Your task to perform on an android device: turn on improve location accuracy Image 0: 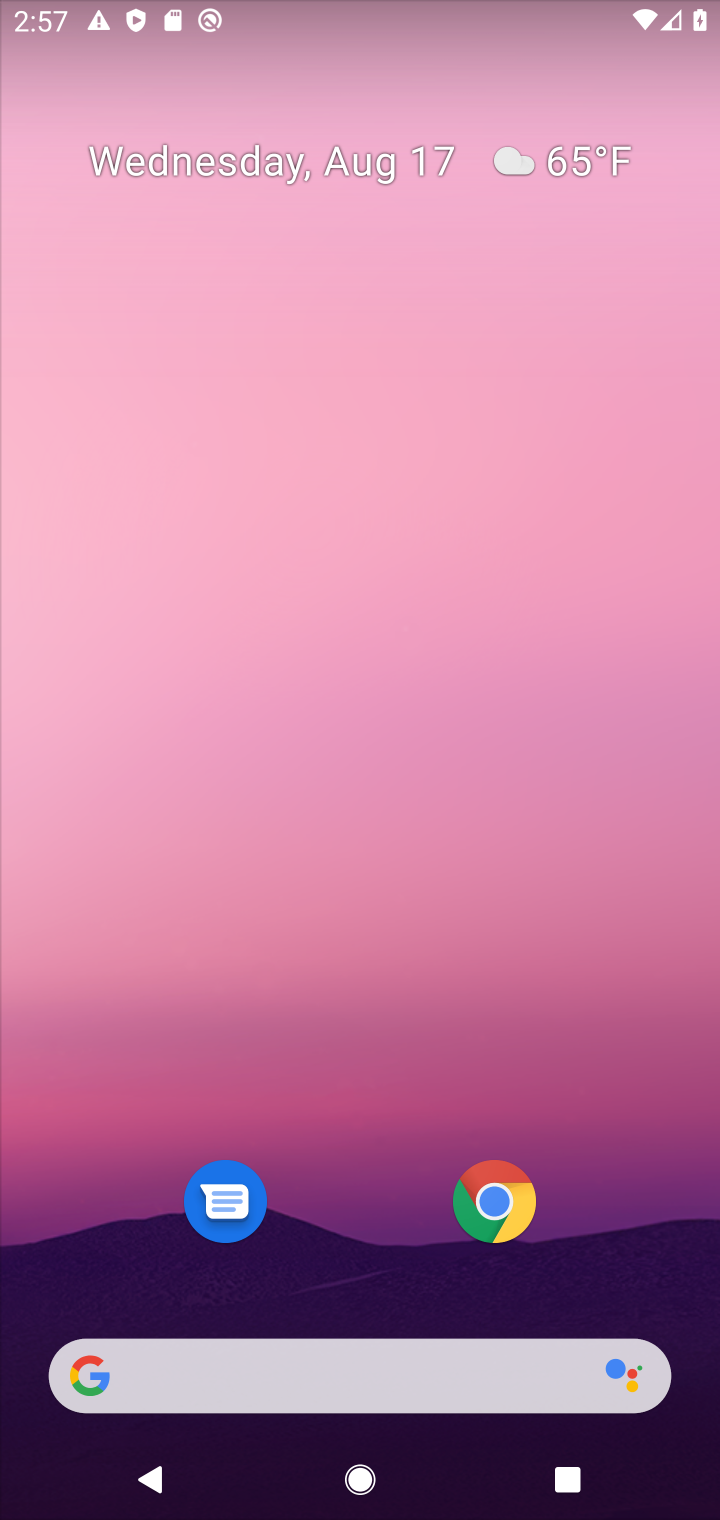
Step 0: drag from (339, 1314) to (438, 83)
Your task to perform on an android device: turn on improve location accuracy Image 1: 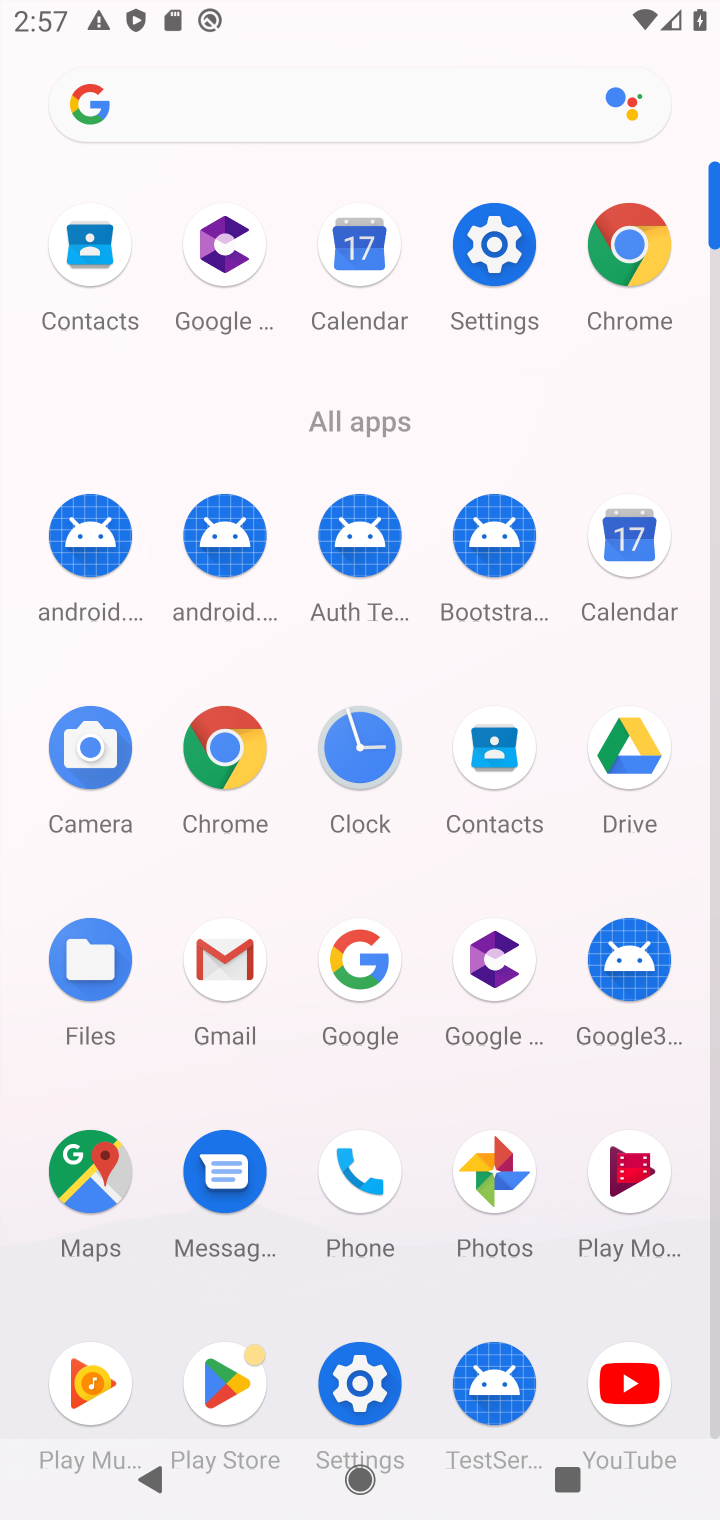
Step 1: click (514, 217)
Your task to perform on an android device: turn on improve location accuracy Image 2: 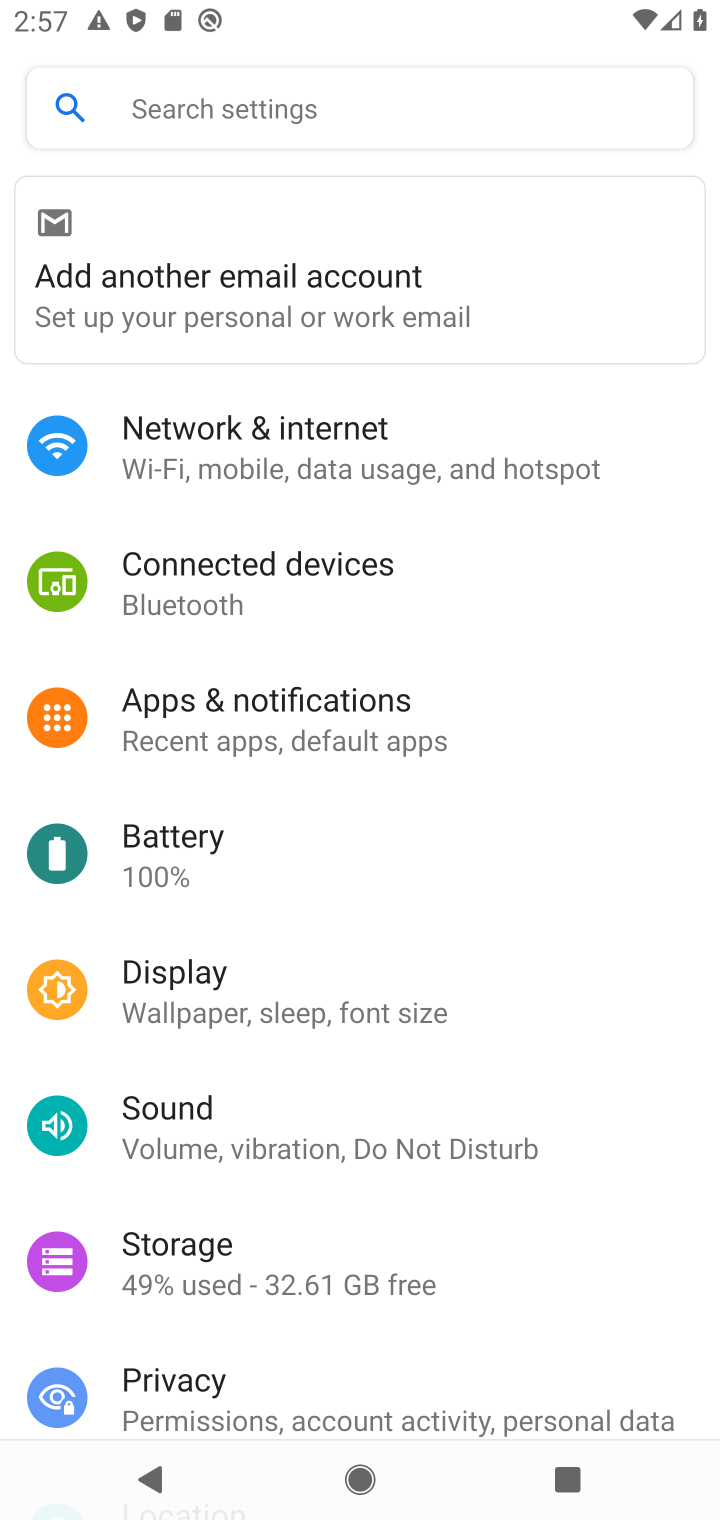
Step 2: drag from (328, 1229) to (417, 276)
Your task to perform on an android device: turn on improve location accuracy Image 3: 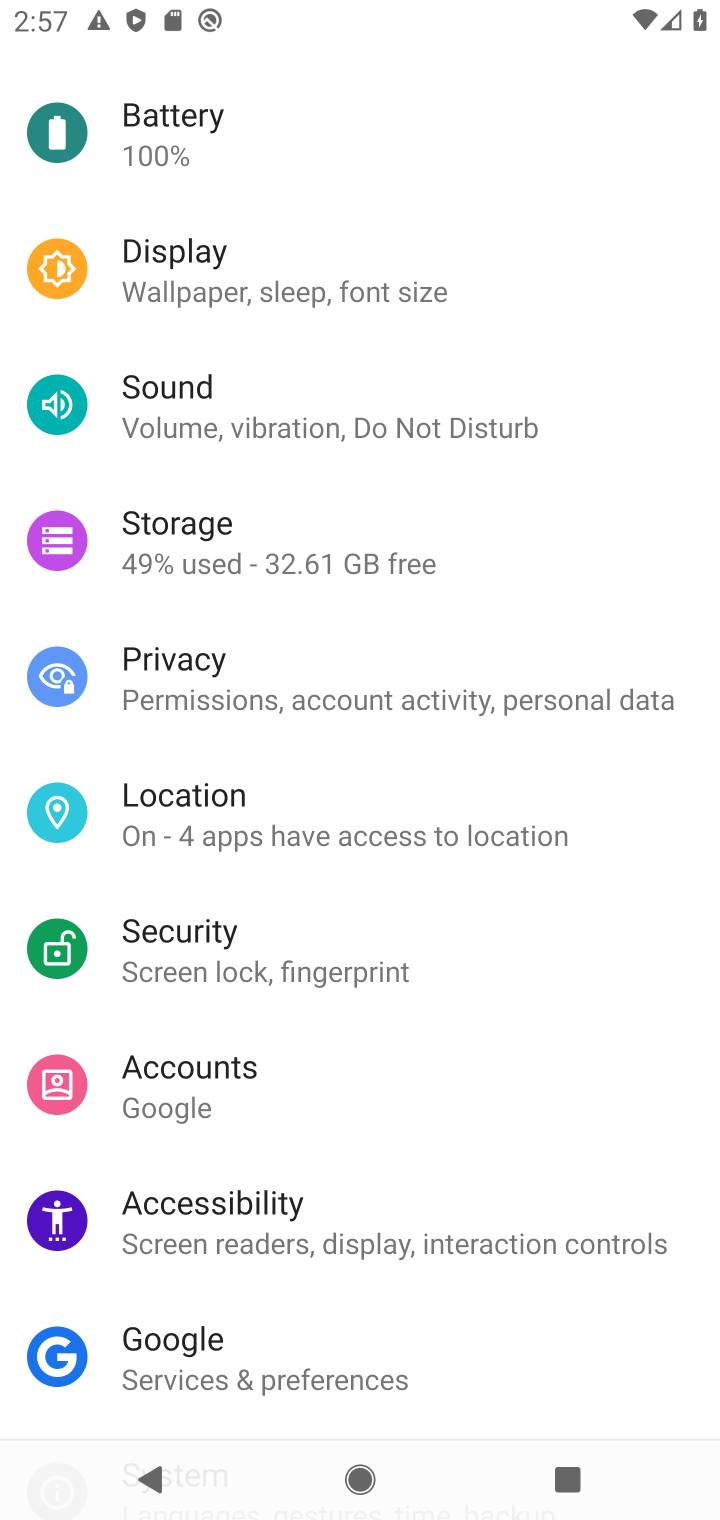
Step 3: click (187, 800)
Your task to perform on an android device: turn on improve location accuracy Image 4: 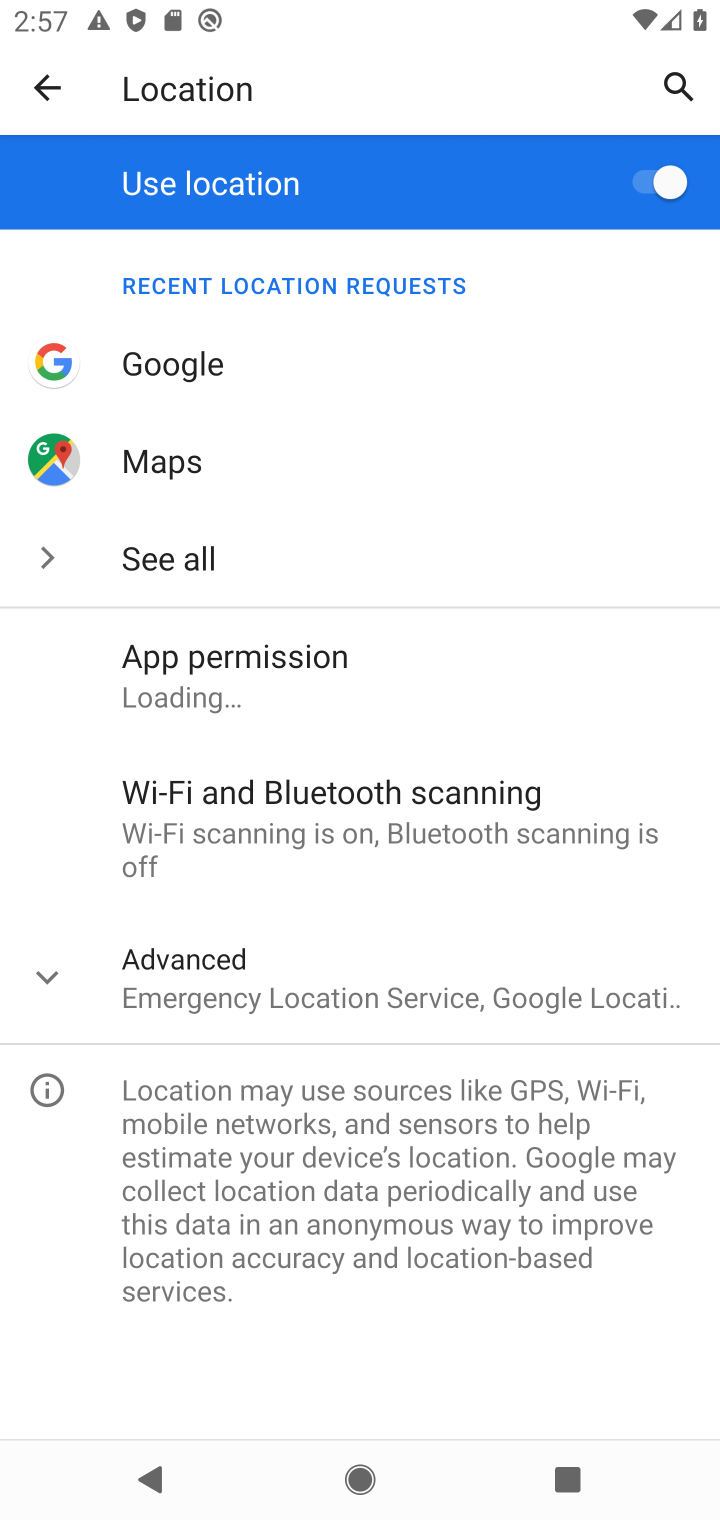
Step 4: click (303, 974)
Your task to perform on an android device: turn on improve location accuracy Image 5: 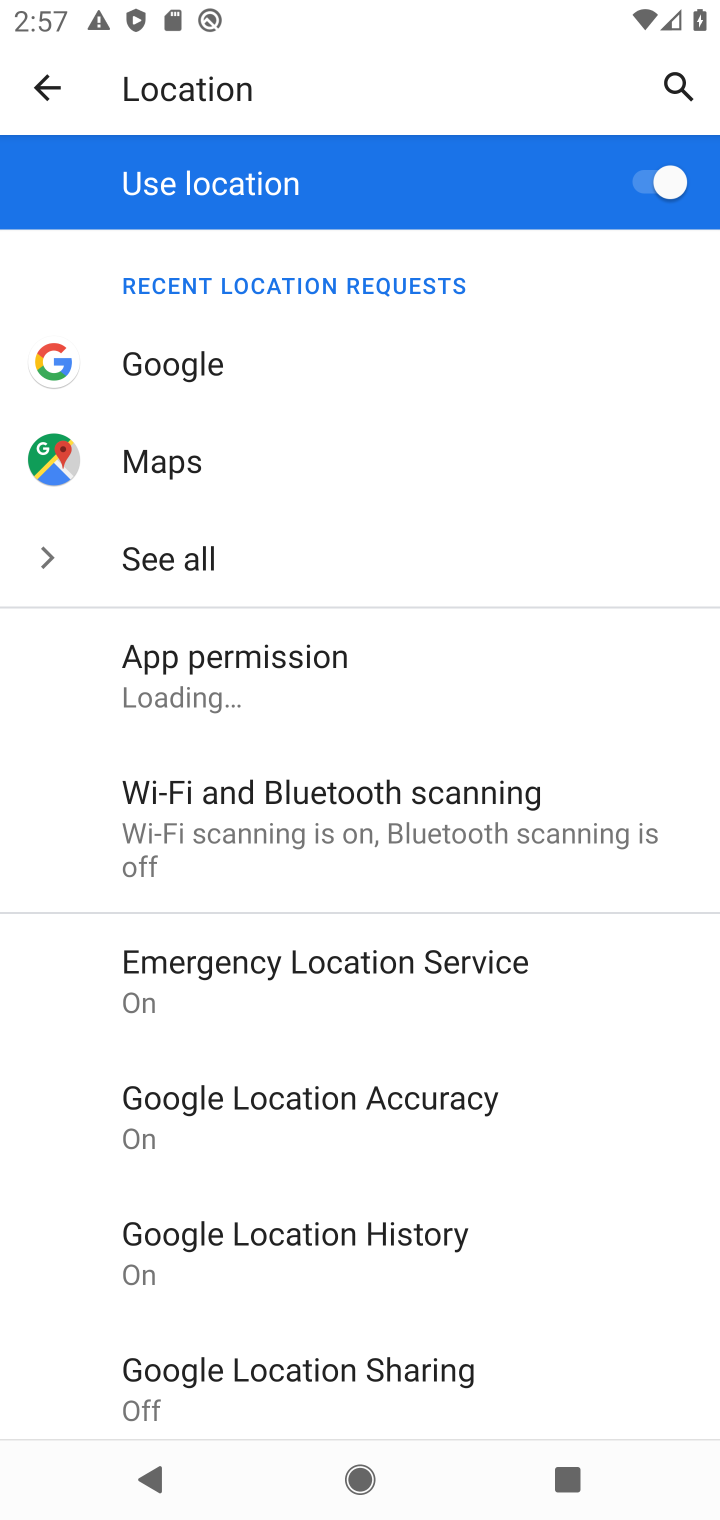
Step 5: click (391, 1092)
Your task to perform on an android device: turn on improve location accuracy Image 6: 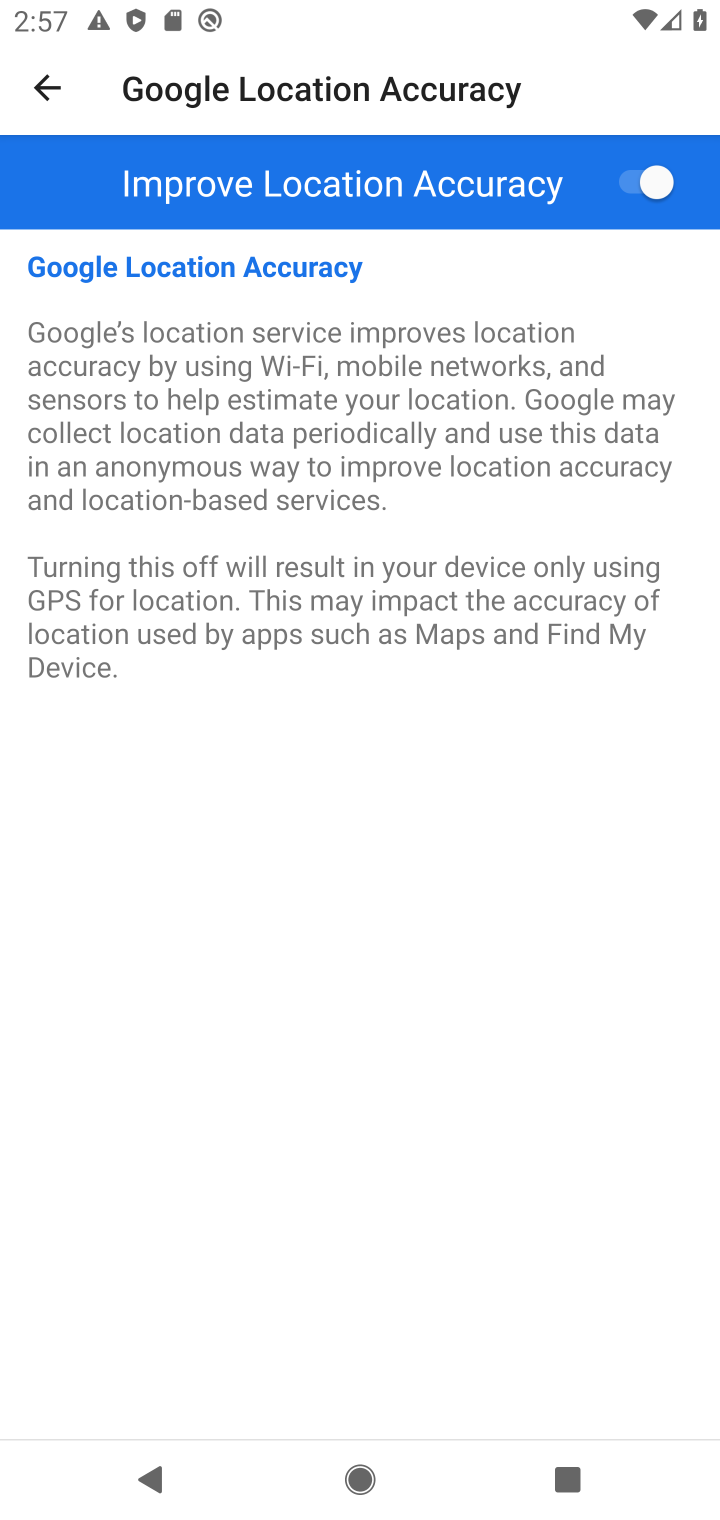
Step 6: task complete